Your task to perform on an android device: change notification settings in the gmail app Image 0: 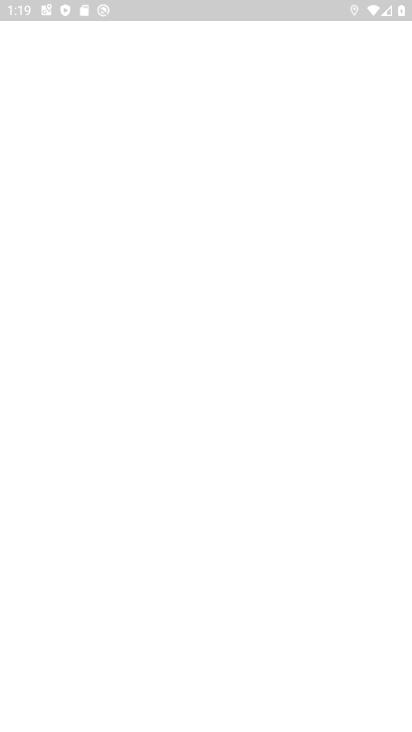
Step 0: press home button
Your task to perform on an android device: change notification settings in the gmail app Image 1: 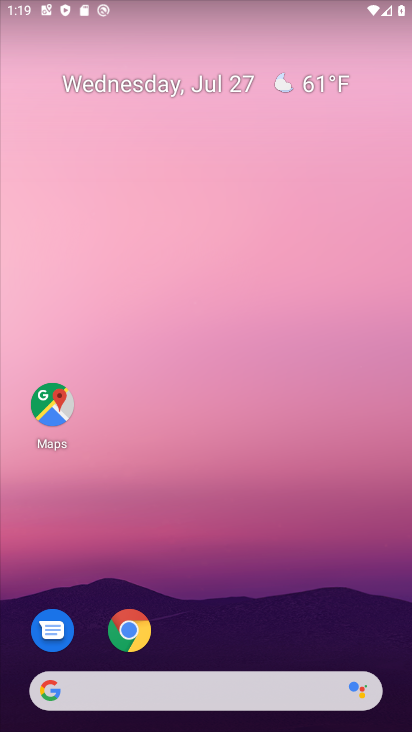
Step 1: drag from (199, 648) to (259, 188)
Your task to perform on an android device: change notification settings in the gmail app Image 2: 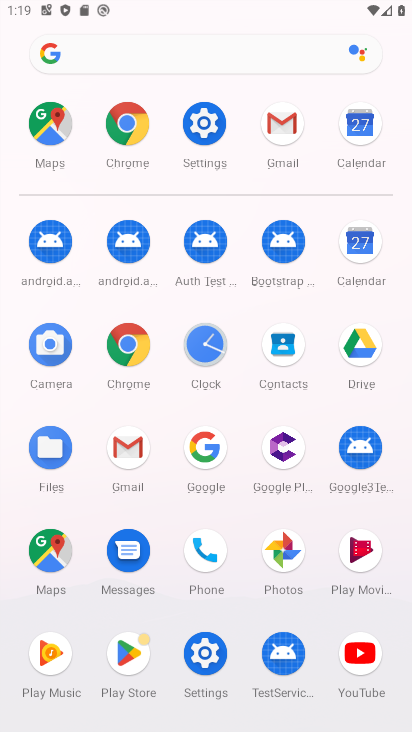
Step 2: click (124, 441)
Your task to perform on an android device: change notification settings in the gmail app Image 3: 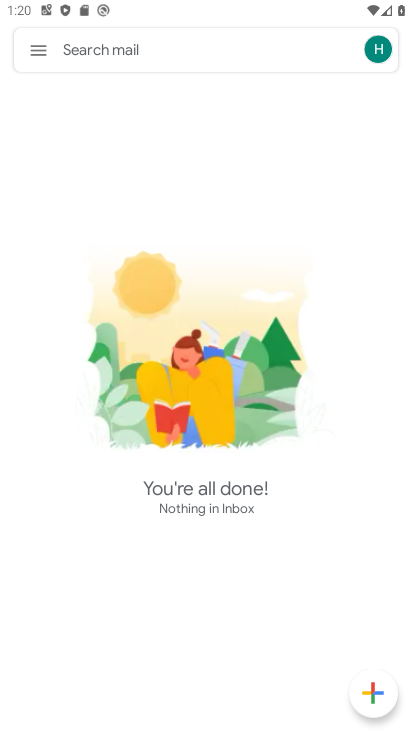
Step 3: click (41, 51)
Your task to perform on an android device: change notification settings in the gmail app Image 4: 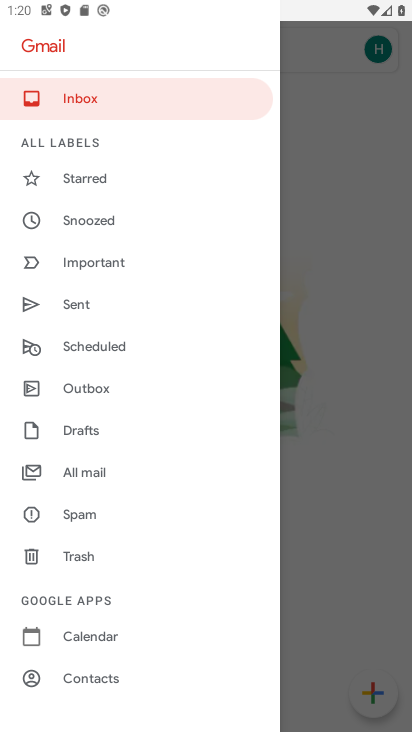
Step 4: drag from (89, 690) to (132, 285)
Your task to perform on an android device: change notification settings in the gmail app Image 5: 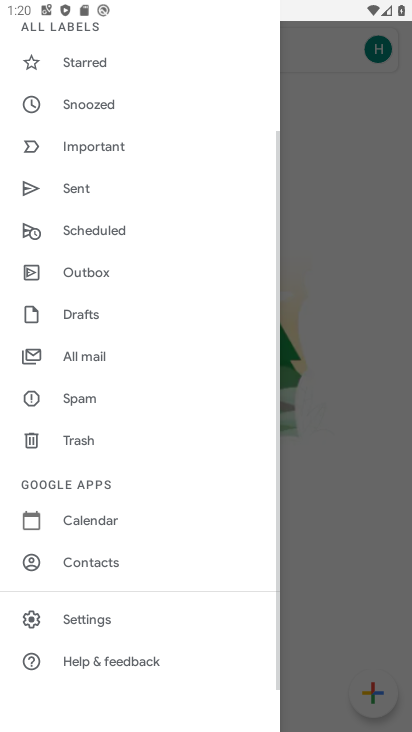
Step 5: click (82, 616)
Your task to perform on an android device: change notification settings in the gmail app Image 6: 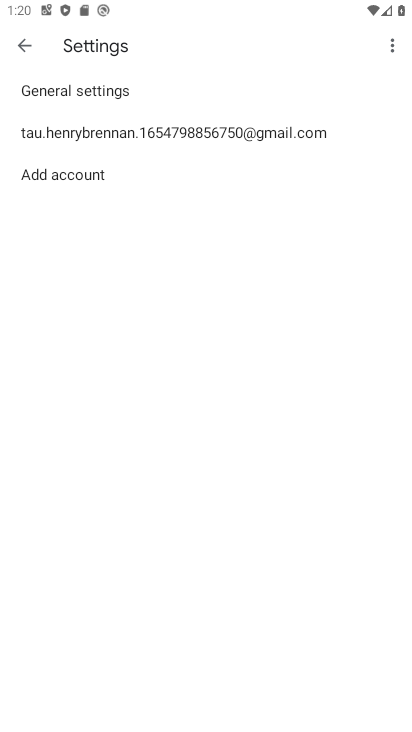
Step 6: click (80, 133)
Your task to perform on an android device: change notification settings in the gmail app Image 7: 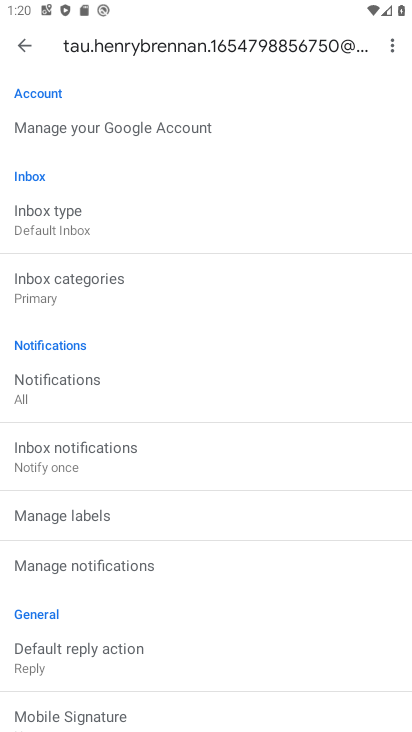
Step 7: click (47, 567)
Your task to perform on an android device: change notification settings in the gmail app Image 8: 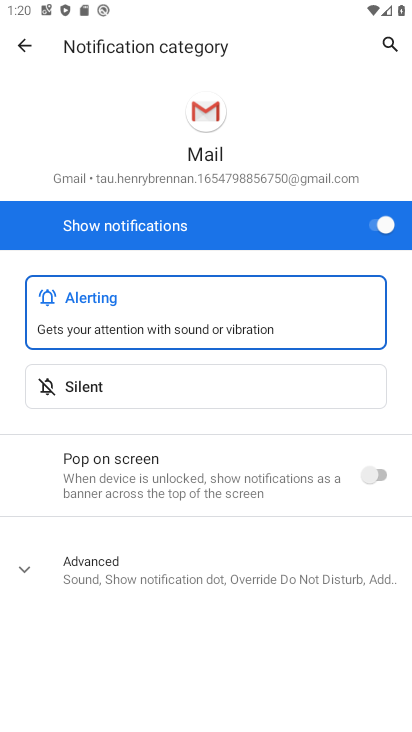
Step 8: click (372, 225)
Your task to perform on an android device: change notification settings in the gmail app Image 9: 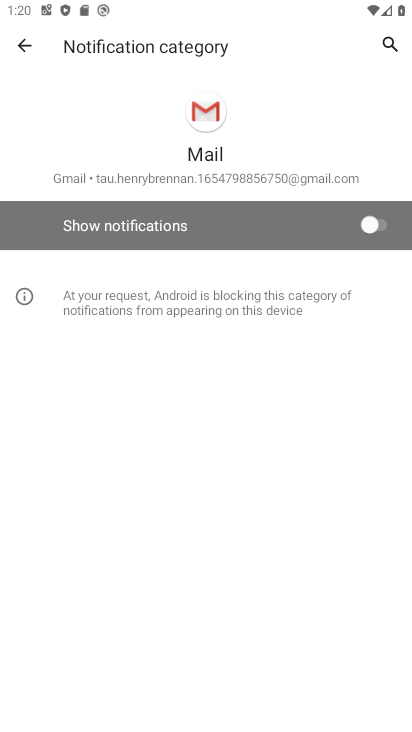
Step 9: task complete